Your task to perform on an android device: Go to Amazon Image 0: 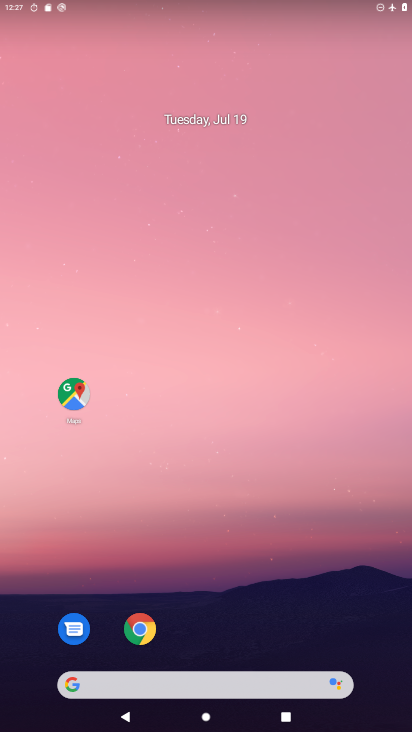
Step 0: drag from (260, 606) to (219, 103)
Your task to perform on an android device: Go to Amazon Image 1: 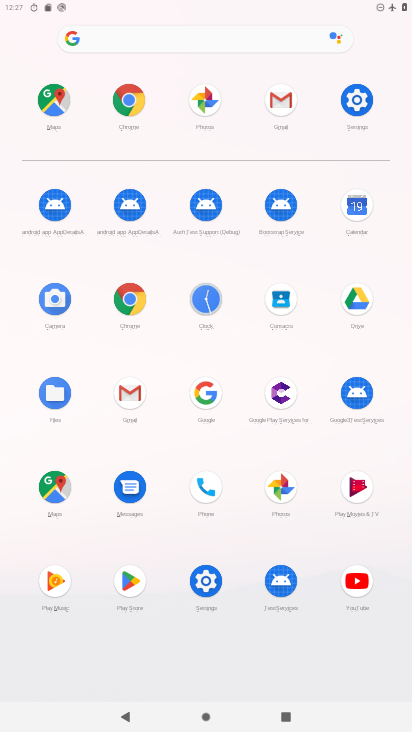
Step 1: click (129, 299)
Your task to perform on an android device: Go to Amazon Image 2: 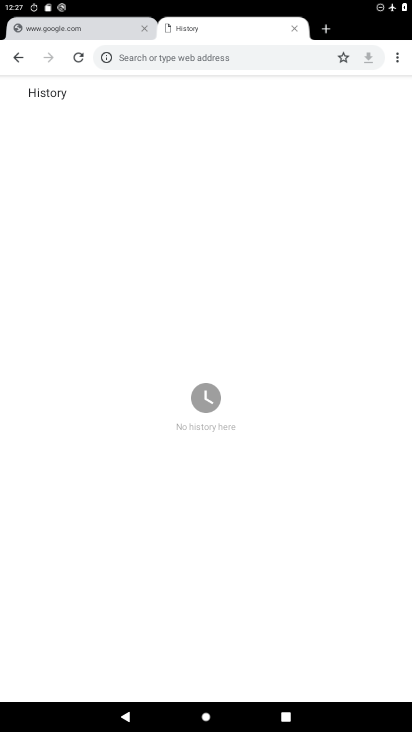
Step 2: click (239, 59)
Your task to perform on an android device: Go to Amazon Image 3: 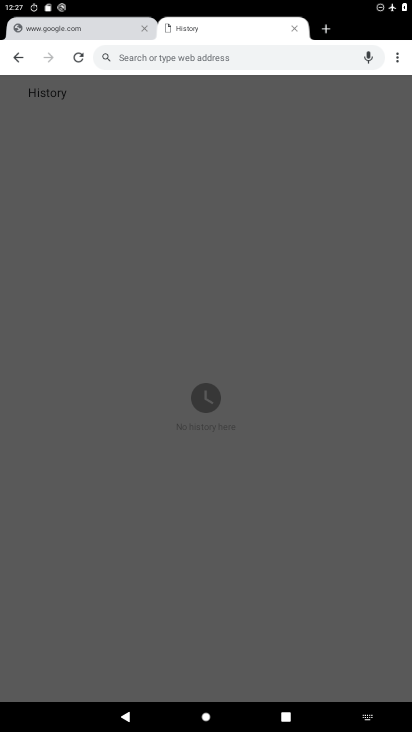
Step 3: type "amazon"
Your task to perform on an android device: Go to Amazon Image 4: 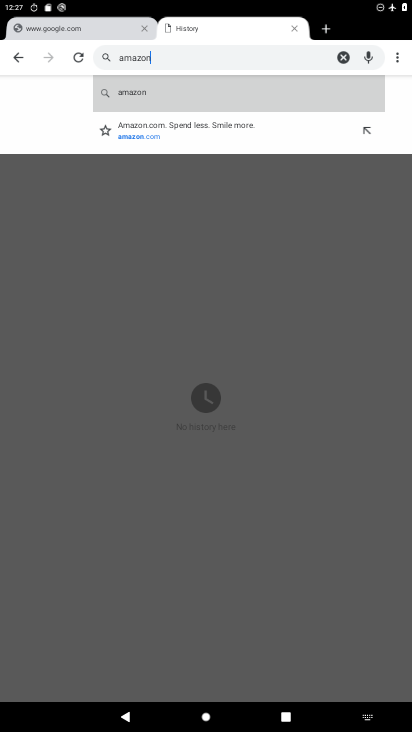
Step 4: click (135, 137)
Your task to perform on an android device: Go to Amazon Image 5: 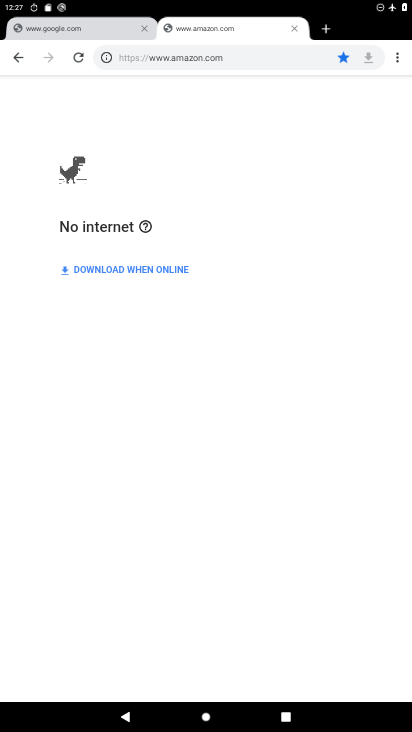
Step 5: task complete